Your task to perform on an android device: Open display settings Image 0: 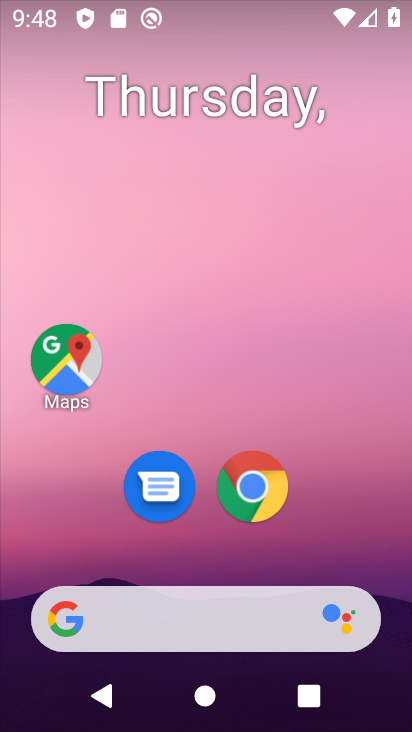
Step 0: drag from (202, 588) to (307, 68)
Your task to perform on an android device: Open display settings Image 1: 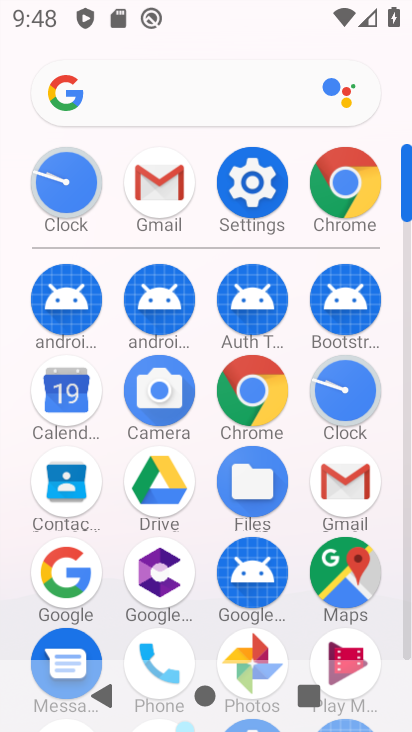
Step 1: click (257, 180)
Your task to perform on an android device: Open display settings Image 2: 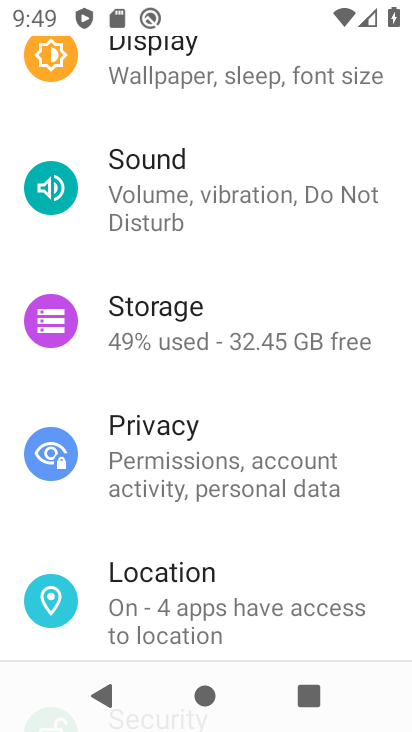
Step 2: click (179, 83)
Your task to perform on an android device: Open display settings Image 3: 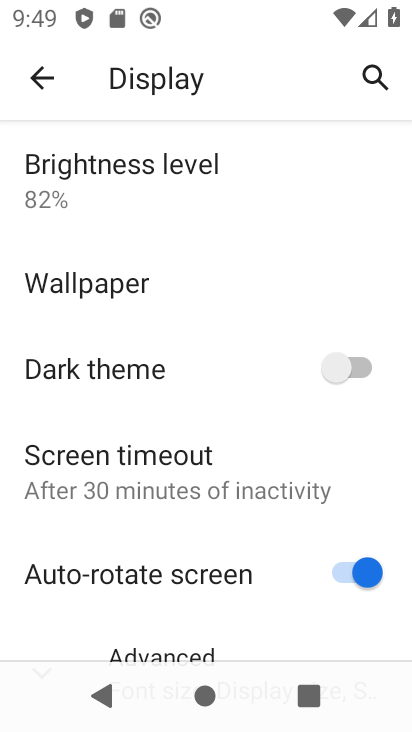
Step 3: task complete